Your task to perform on an android device: Do I have any events today? Image 0: 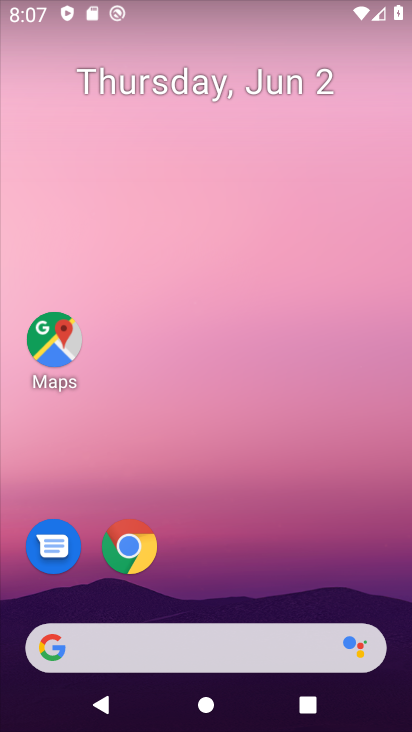
Step 0: drag from (260, 710) to (113, 41)
Your task to perform on an android device: Do I have any events today? Image 1: 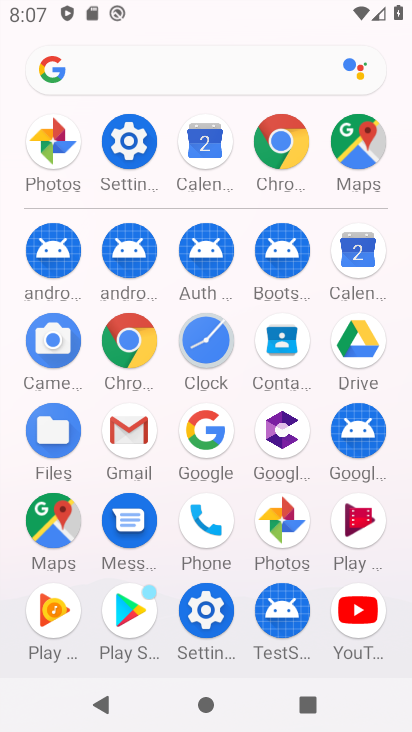
Step 1: click (355, 261)
Your task to perform on an android device: Do I have any events today? Image 2: 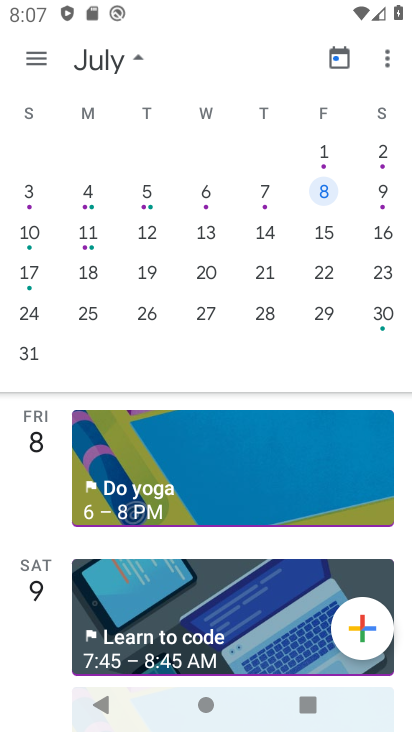
Step 2: drag from (407, 326) to (408, 284)
Your task to perform on an android device: Do I have any events today? Image 3: 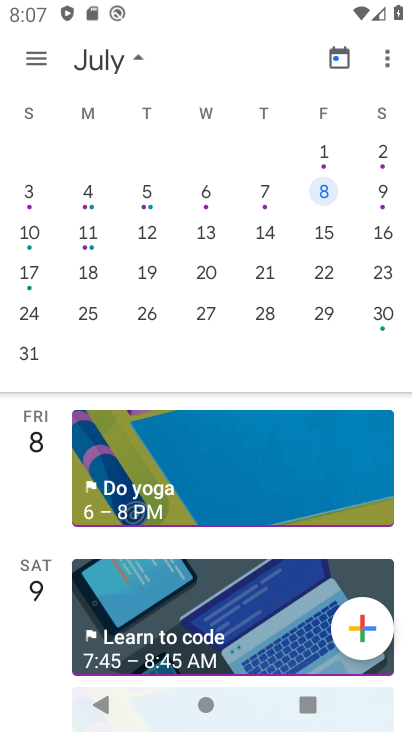
Step 3: drag from (86, 272) to (396, 324)
Your task to perform on an android device: Do I have any events today? Image 4: 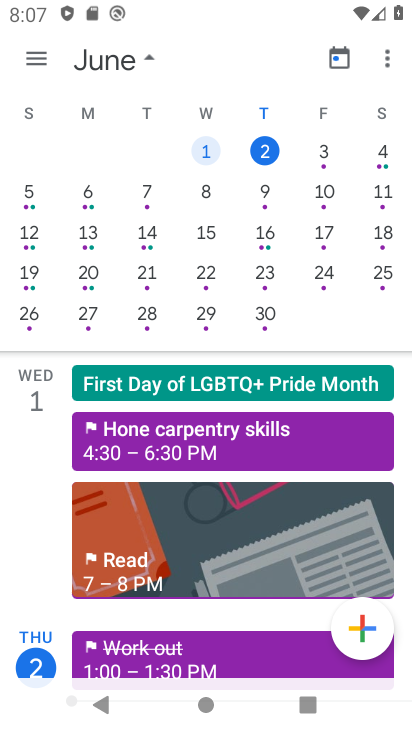
Step 4: click (325, 149)
Your task to perform on an android device: Do I have any events today? Image 5: 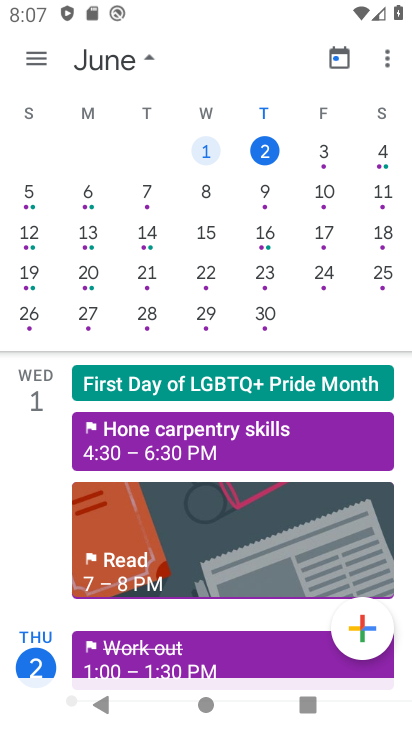
Step 5: click (325, 149)
Your task to perform on an android device: Do I have any events today? Image 6: 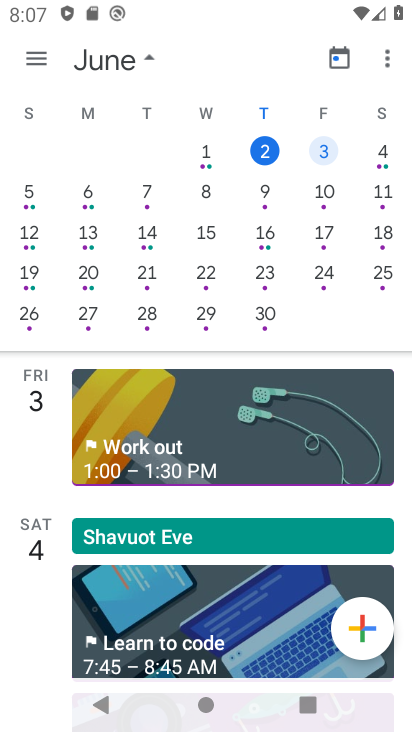
Step 6: click (323, 151)
Your task to perform on an android device: Do I have any events today? Image 7: 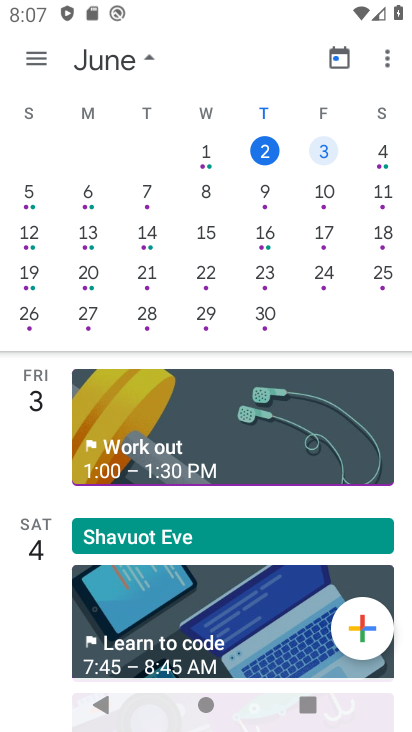
Step 7: click (323, 151)
Your task to perform on an android device: Do I have any events today? Image 8: 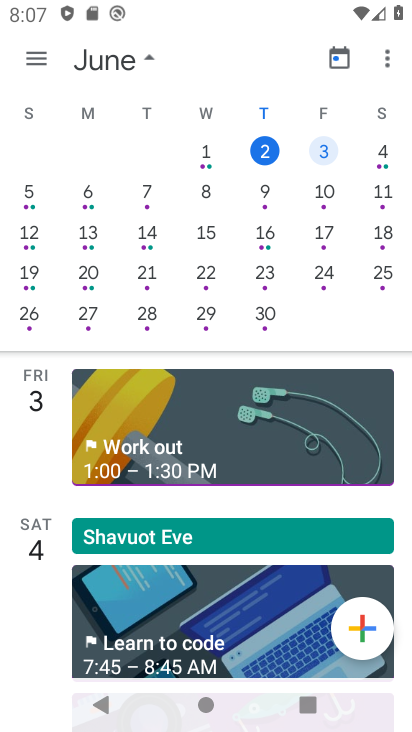
Step 8: click (324, 150)
Your task to perform on an android device: Do I have any events today? Image 9: 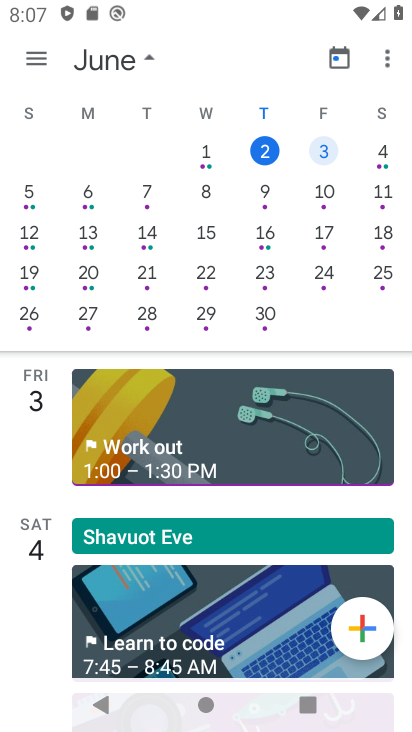
Step 9: click (324, 149)
Your task to perform on an android device: Do I have any events today? Image 10: 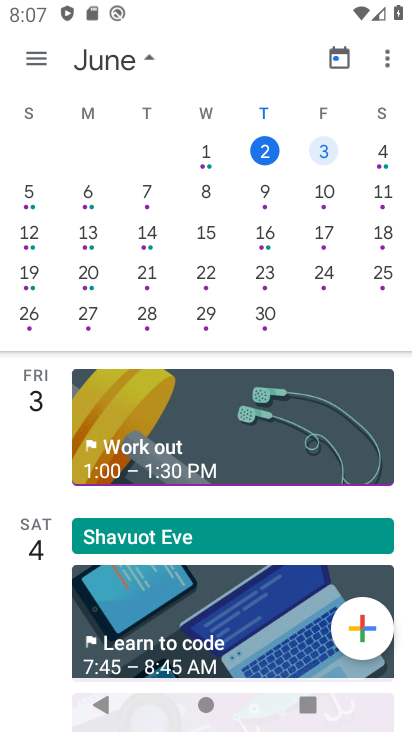
Step 10: click (324, 149)
Your task to perform on an android device: Do I have any events today? Image 11: 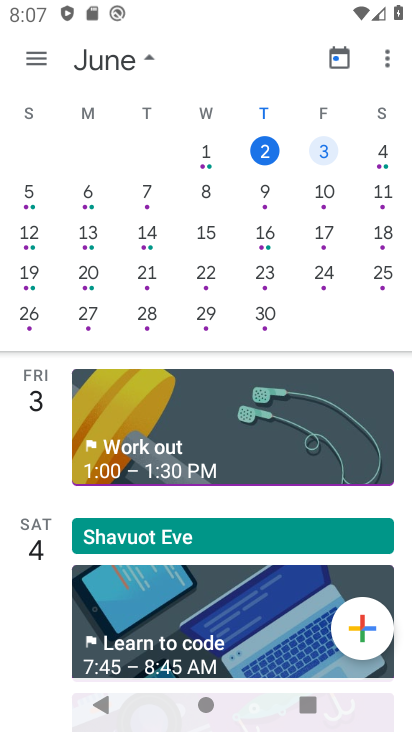
Step 11: click (325, 147)
Your task to perform on an android device: Do I have any events today? Image 12: 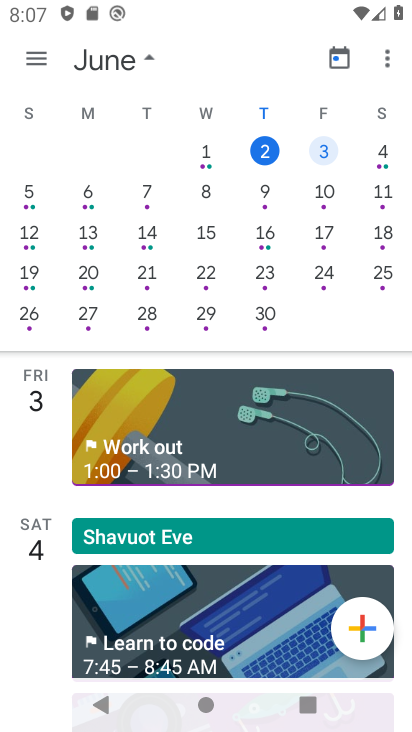
Step 12: click (332, 148)
Your task to perform on an android device: Do I have any events today? Image 13: 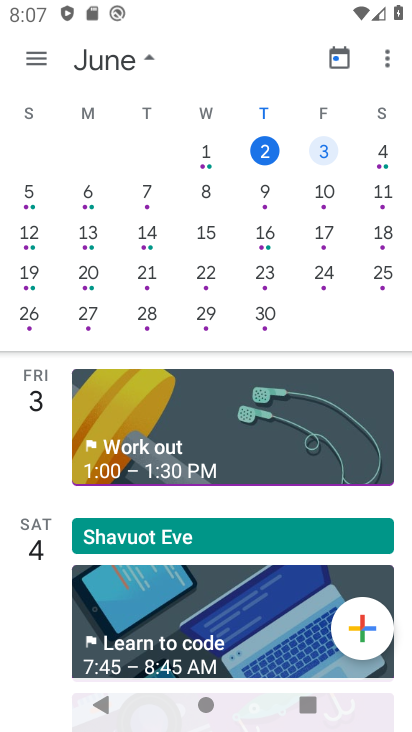
Step 13: click (335, 148)
Your task to perform on an android device: Do I have any events today? Image 14: 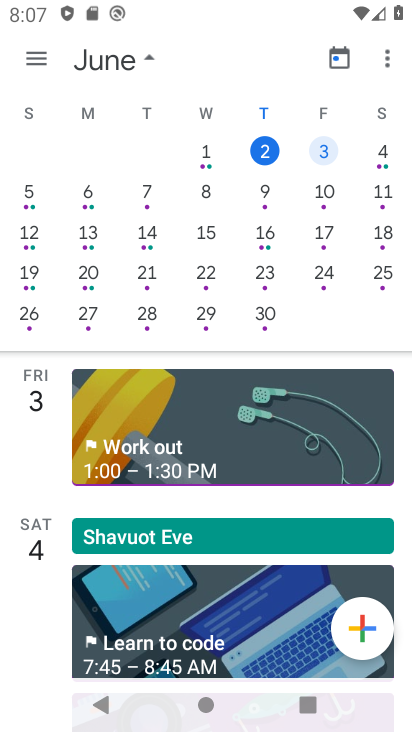
Step 14: click (248, 455)
Your task to perform on an android device: Do I have any events today? Image 15: 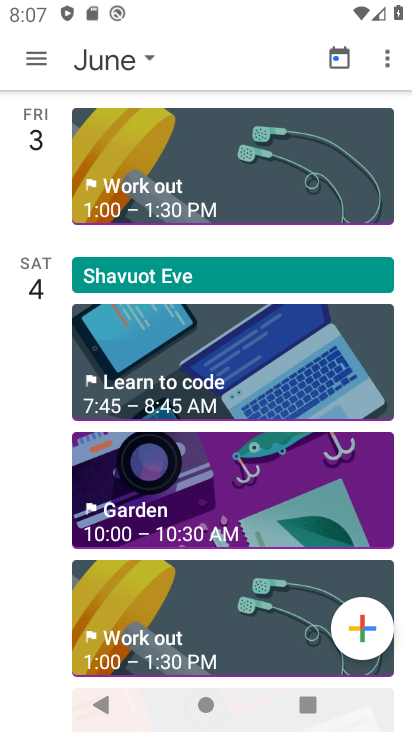
Step 15: task complete